Your task to perform on an android device: see tabs open on other devices in the chrome app Image 0: 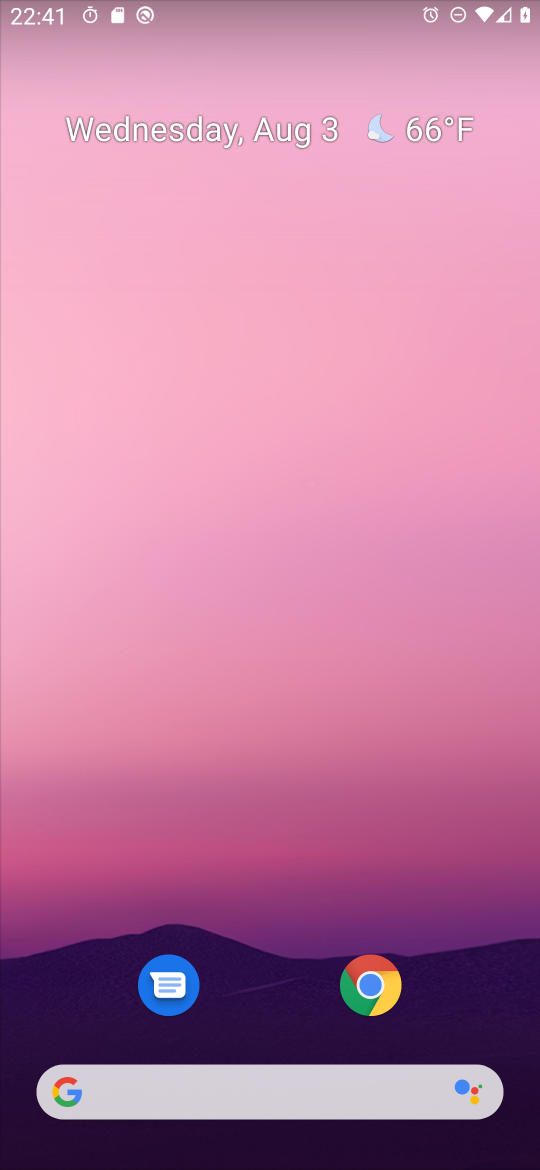
Step 0: click (351, 969)
Your task to perform on an android device: see tabs open on other devices in the chrome app Image 1: 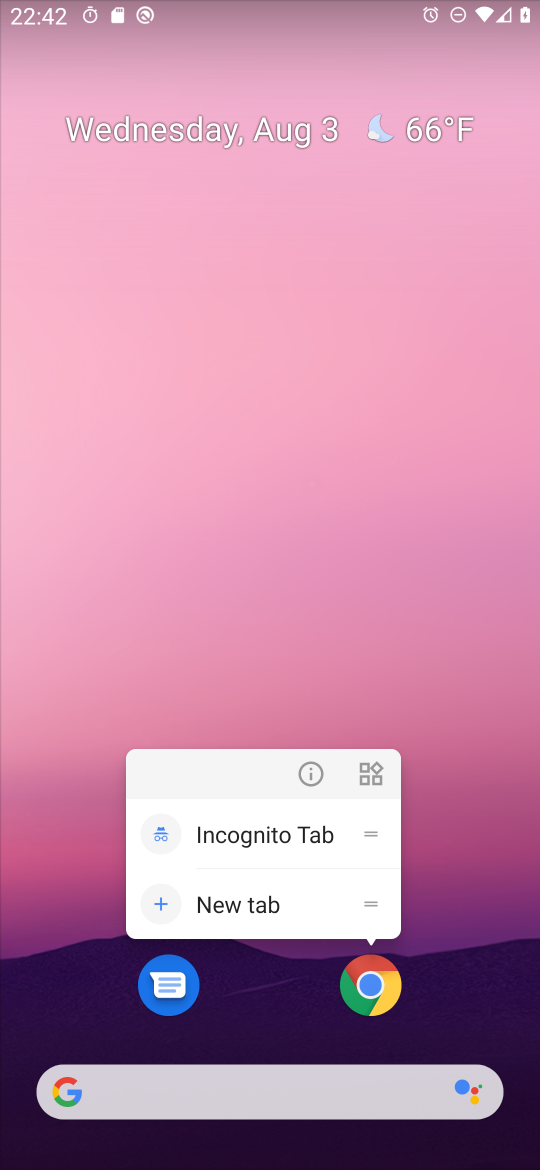
Step 1: click (390, 995)
Your task to perform on an android device: see tabs open on other devices in the chrome app Image 2: 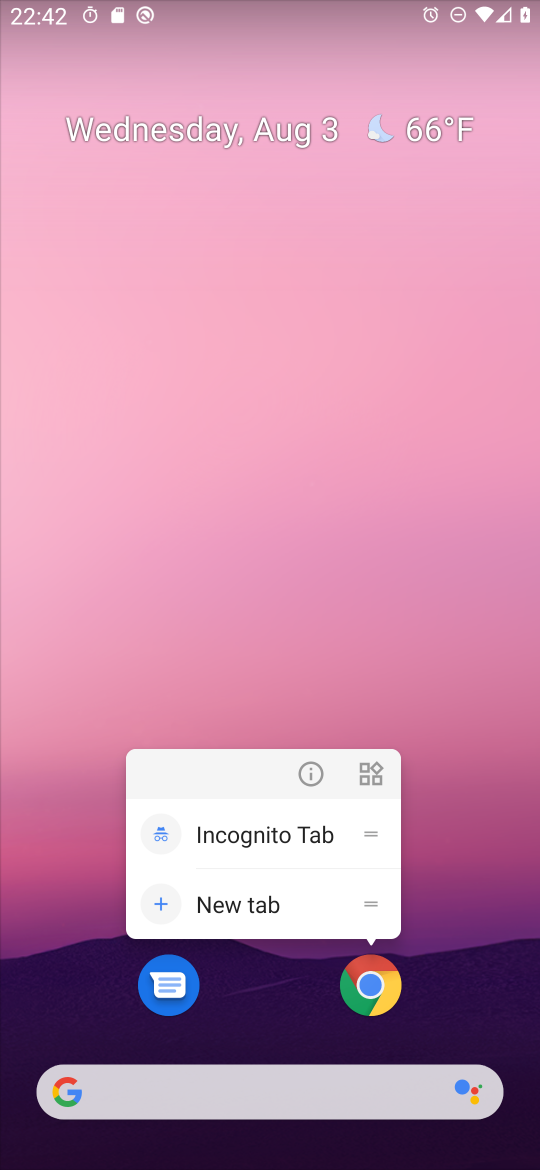
Step 2: click (390, 995)
Your task to perform on an android device: see tabs open on other devices in the chrome app Image 3: 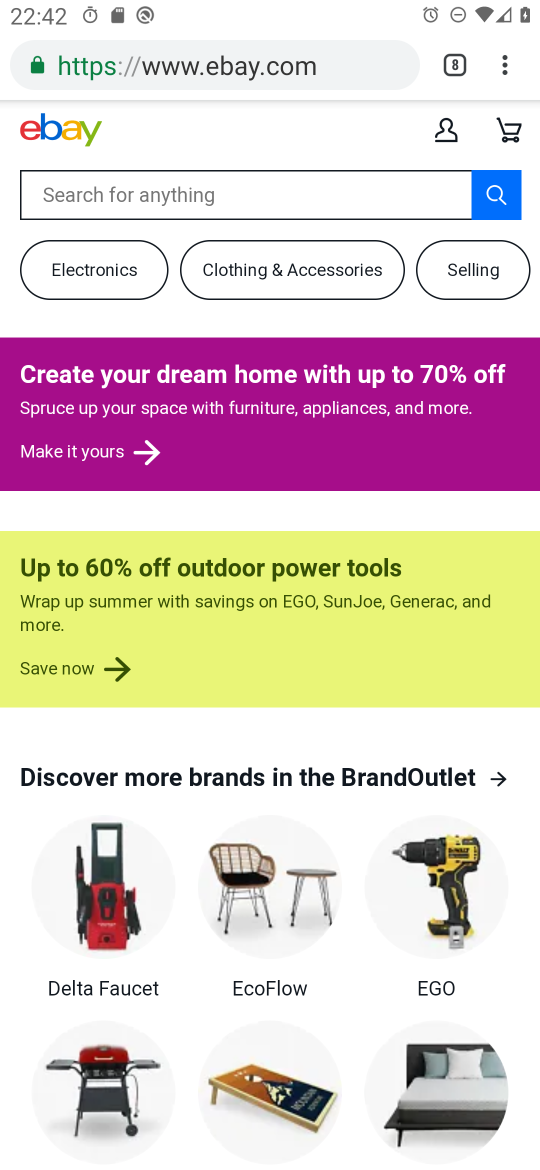
Step 3: click (496, 82)
Your task to perform on an android device: see tabs open on other devices in the chrome app Image 4: 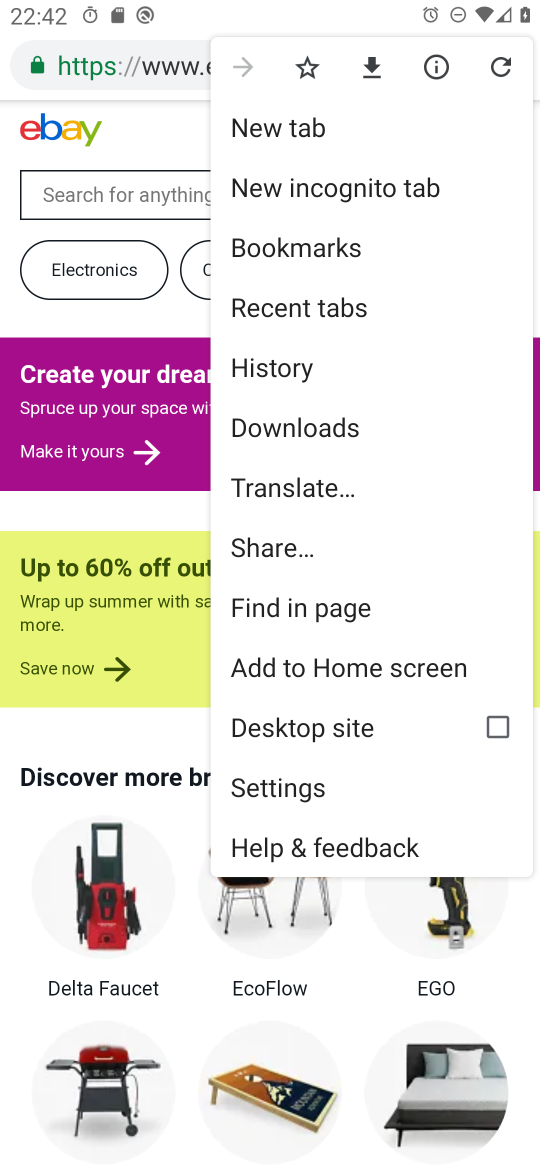
Step 4: click (298, 319)
Your task to perform on an android device: see tabs open on other devices in the chrome app Image 5: 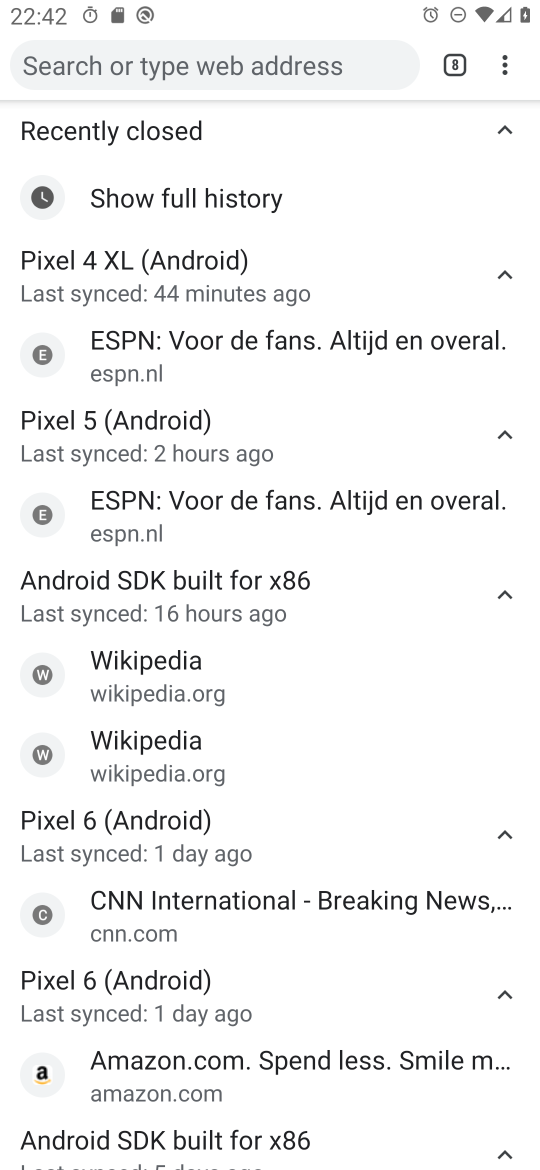
Step 5: task complete